Your task to perform on an android device: Go to notification settings Image 0: 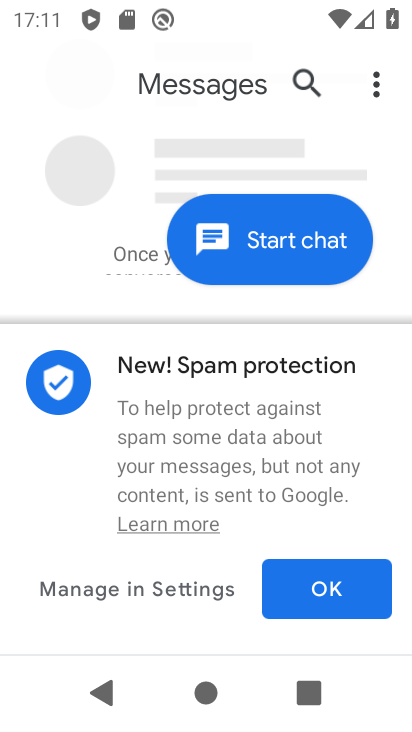
Step 0: drag from (344, 496) to (255, 185)
Your task to perform on an android device: Go to notification settings Image 1: 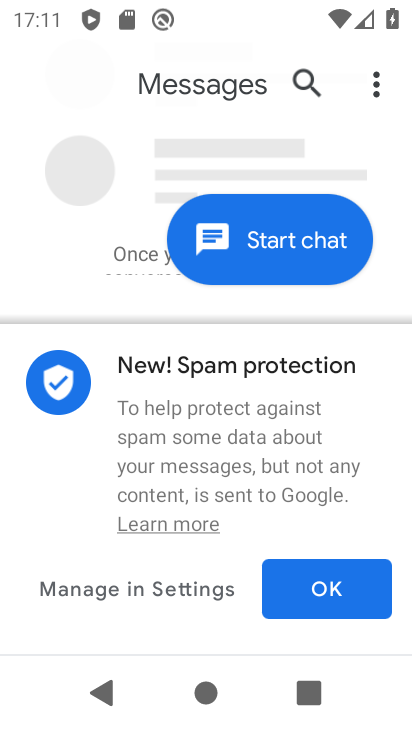
Step 1: press home button
Your task to perform on an android device: Go to notification settings Image 2: 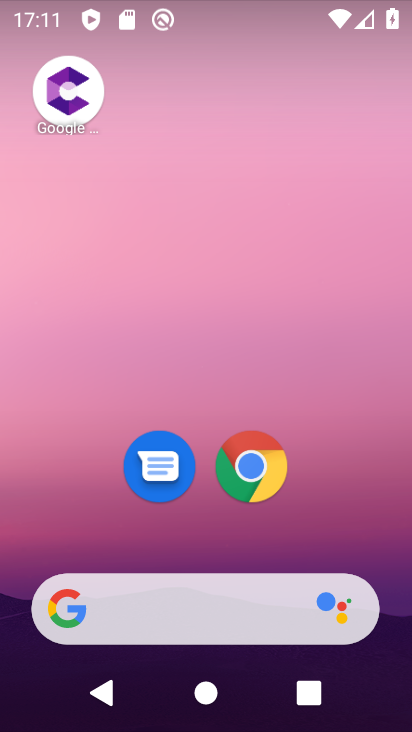
Step 2: drag from (350, 476) to (206, 3)
Your task to perform on an android device: Go to notification settings Image 3: 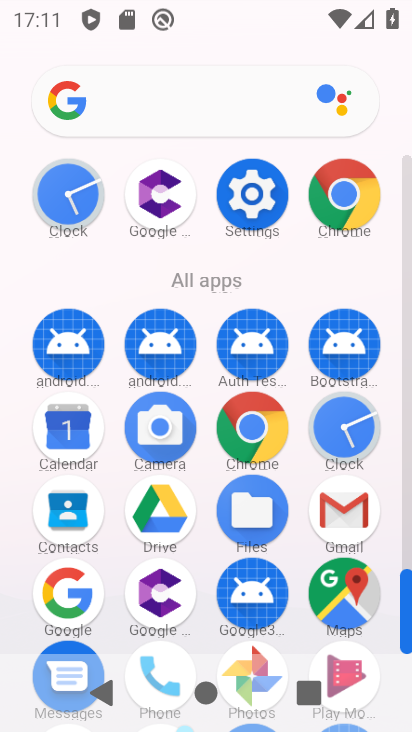
Step 3: click (254, 180)
Your task to perform on an android device: Go to notification settings Image 4: 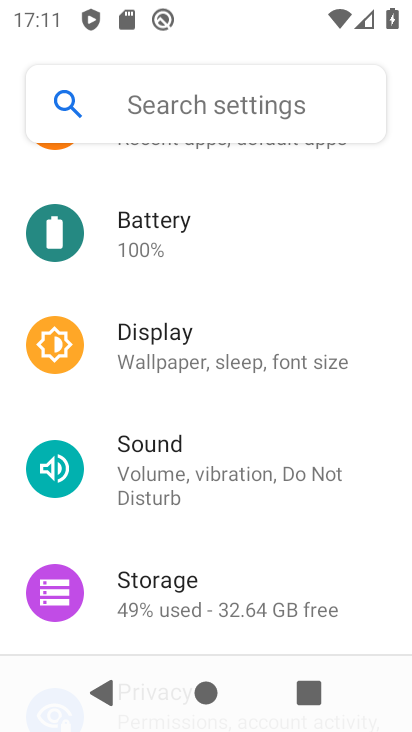
Step 4: drag from (217, 287) to (243, 636)
Your task to perform on an android device: Go to notification settings Image 5: 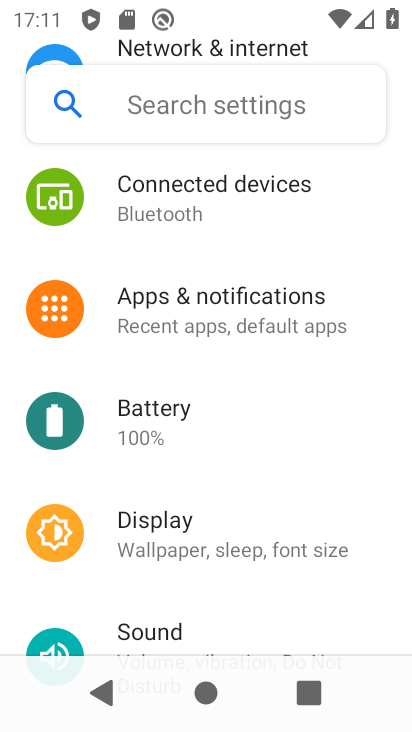
Step 5: click (214, 294)
Your task to perform on an android device: Go to notification settings Image 6: 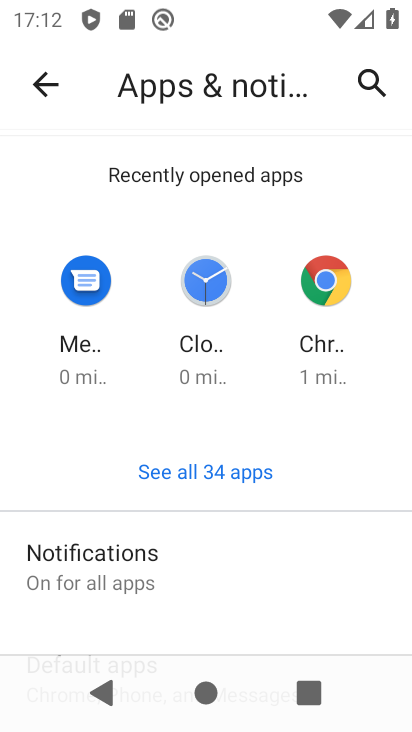
Step 6: task complete